Your task to perform on an android device: see tabs open on other devices in the chrome app Image 0: 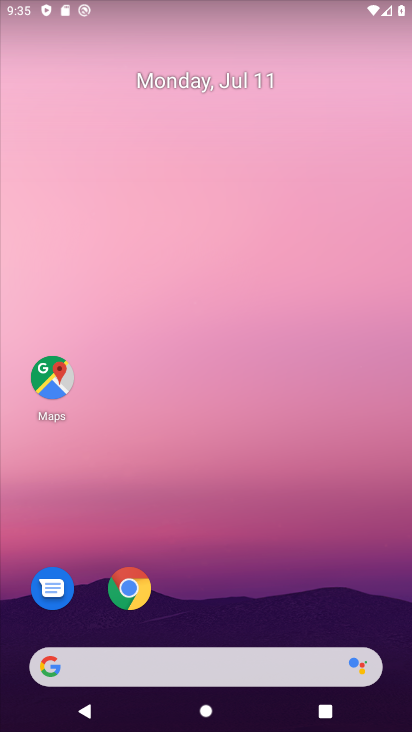
Step 0: drag from (339, 509) to (394, 98)
Your task to perform on an android device: see tabs open on other devices in the chrome app Image 1: 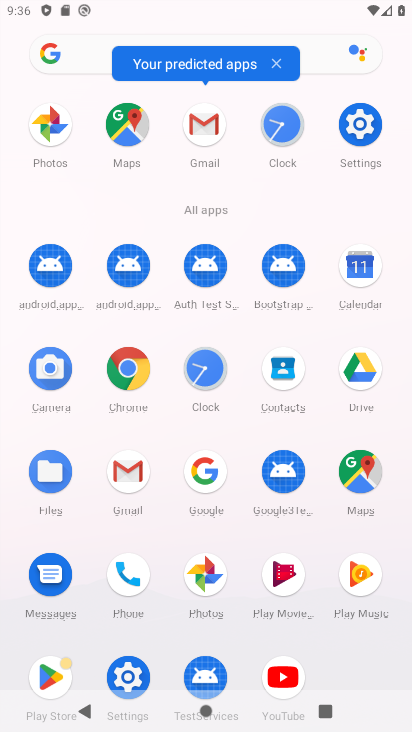
Step 1: click (121, 369)
Your task to perform on an android device: see tabs open on other devices in the chrome app Image 2: 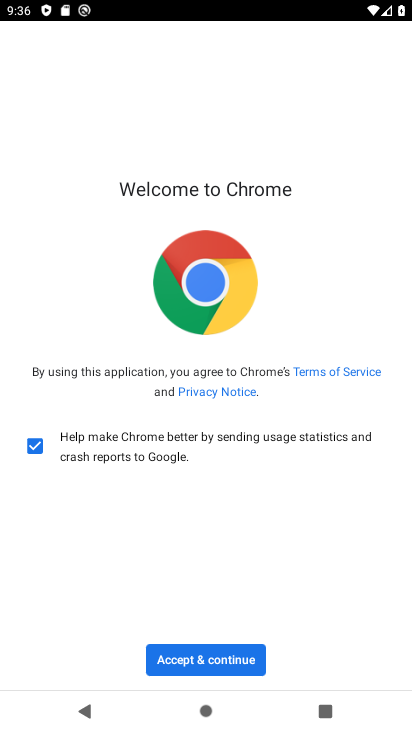
Step 2: click (221, 666)
Your task to perform on an android device: see tabs open on other devices in the chrome app Image 3: 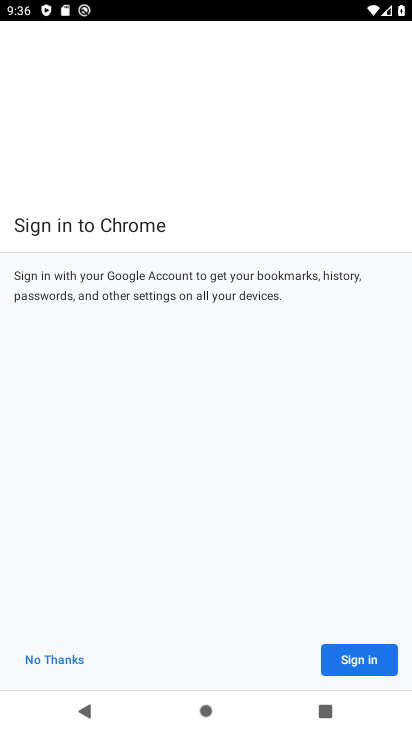
Step 3: click (355, 662)
Your task to perform on an android device: see tabs open on other devices in the chrome app Image 4: 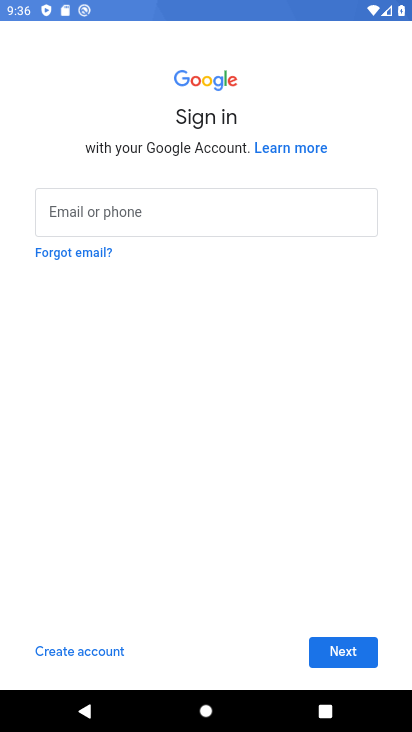
Step 4: click (359, 647)
Your task to perform on an android device: see tabs open on other devices in the chrome app Image 5: 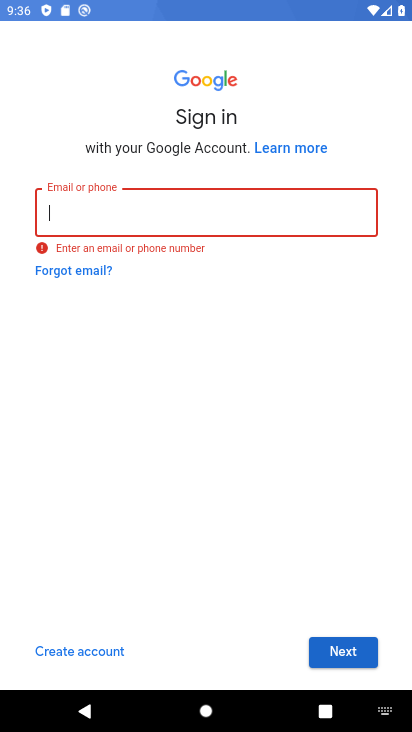
Step 5: task complete